Your task to perform on an android device: open chrome privacy settings Image 0: 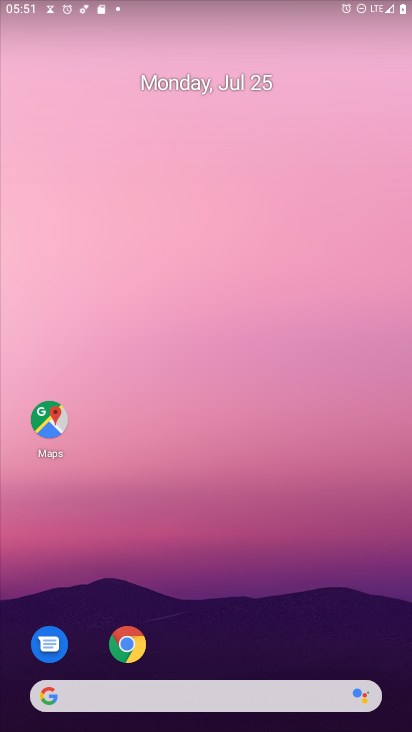
Step 0: press home button
Your task to perform on an android device: open chrome privacy settings Image 1: 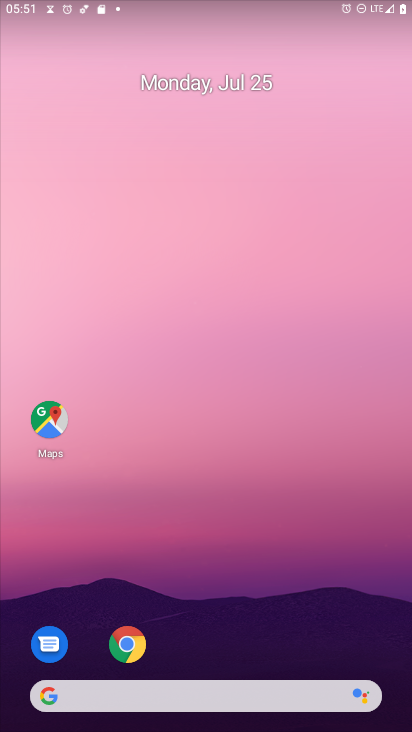
Step 1: drag from (240, 648) to (234, 3)
Your task to perform on an android device: open chrome privacy settings Image 2: 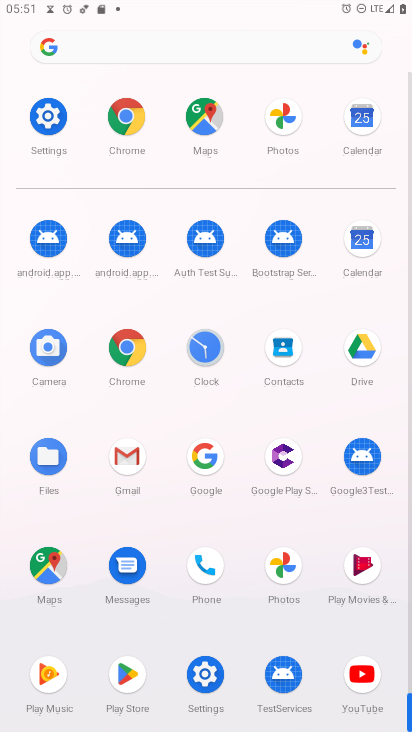
Step 2: click (124, 120)
Your task to perform on an android device: open chrome privacy settings Image 3: 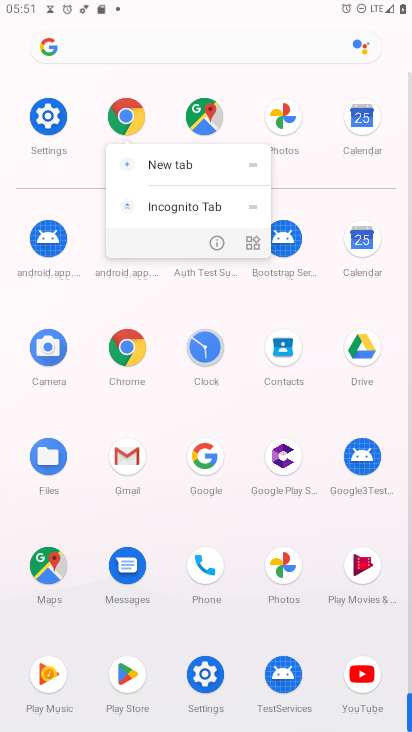
Step 3: click (129, 116)
Your task to perform on an android device: open chrome privacy settings Image 4: 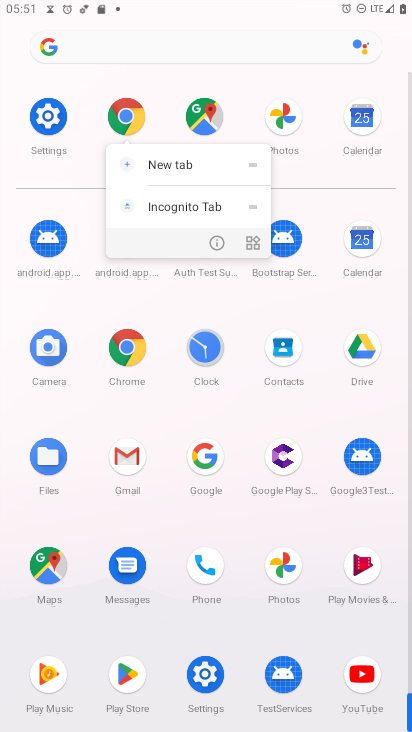
Step 4: click (130, 121)
Your task to perform on an android device: open chrome privacy settings Image 5: 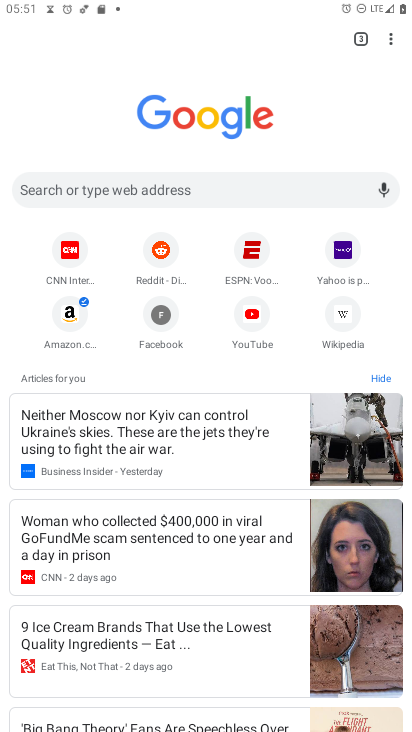
Step 5: drag from (399, 34) to (259, 325)
Your task to perform on an android device: open chrome privacy settings Image 6: 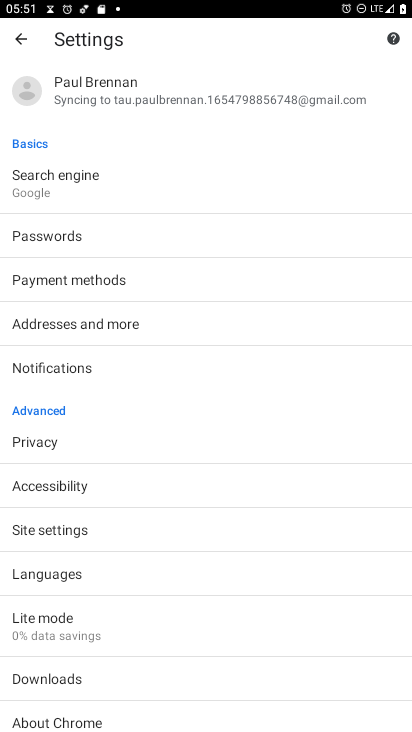
Step 6: click (34, 441)
Your task to perform on an android device: open chrome privacy settings Image 7: 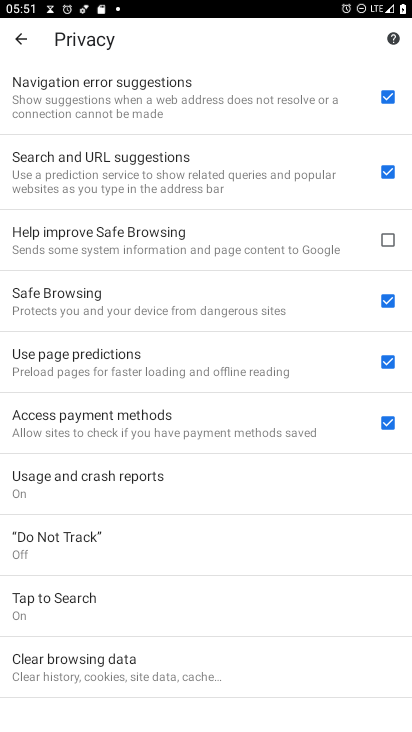
Step 7: task complete